Your task to perform on an android device: change alarm snooze length Image 0: 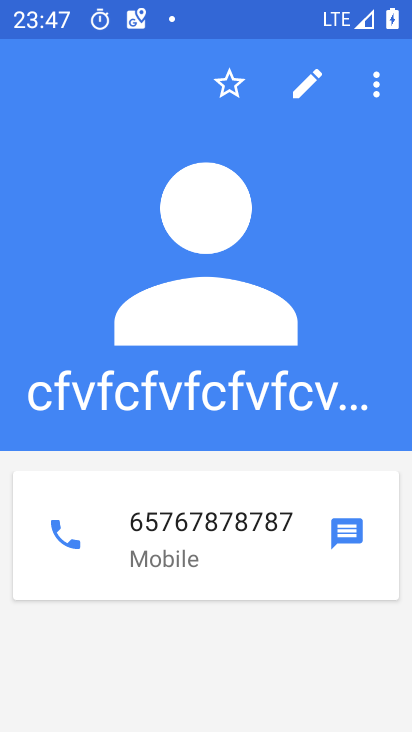
Step 0: press home button
Your task to perform on an android device: change alarm snooze length Image 1: 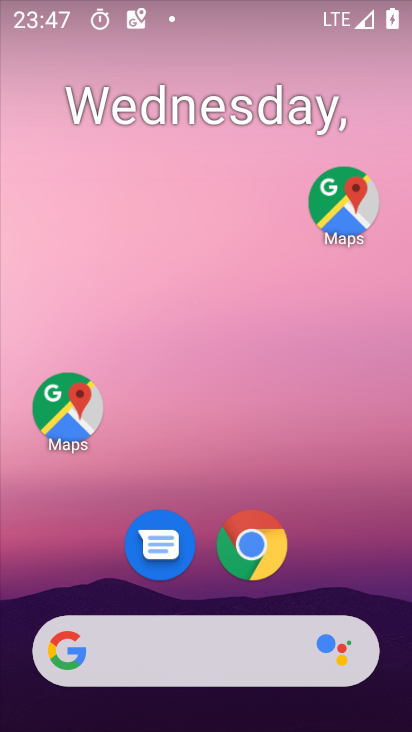
Step 1: drag from (322, 584) to (258, 3)
Your task to perform on an android device: change alarm snooze length Image 2: 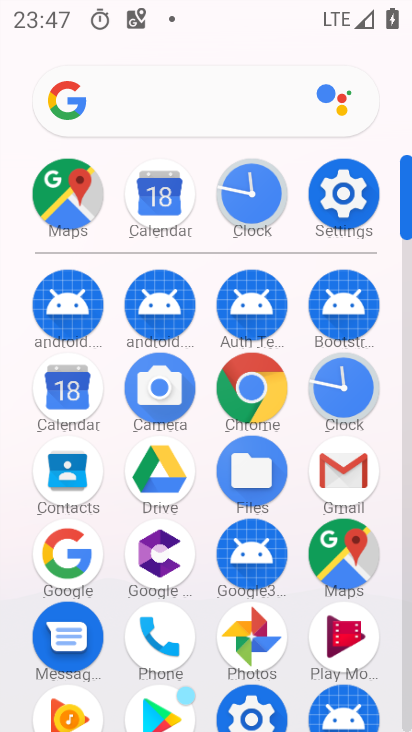
Step 2: click (337, 388)
Your task to perform on an android device: change alarm snooze length Image 3: 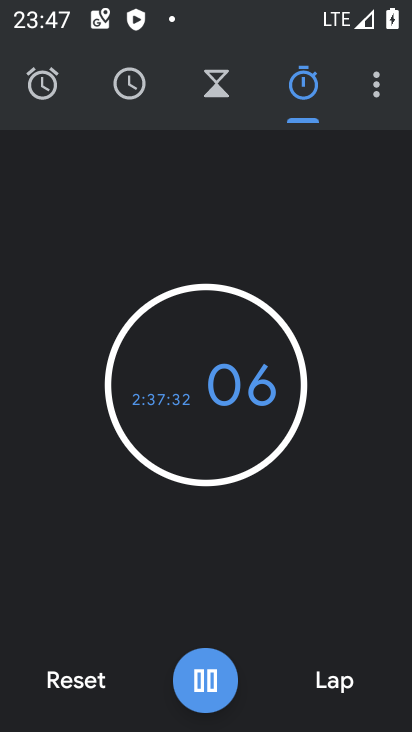
Step 3: click (377, 96)
Your task to perform on an android device: change alarm snooze length Image 4: 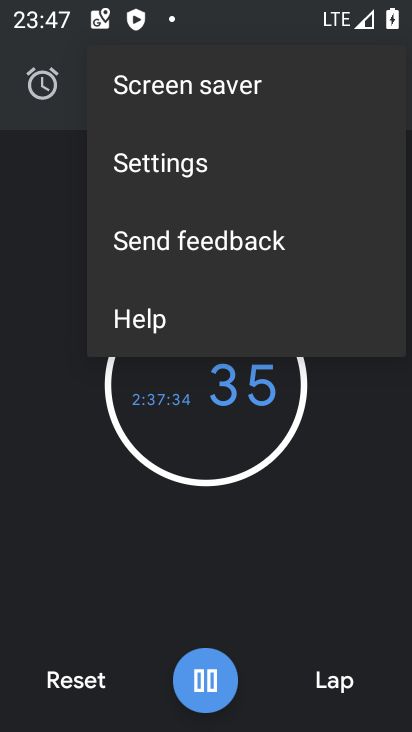
Step 4: click (141, 186)
Your task to perform on an android device: change alarm snooze length Image 5: 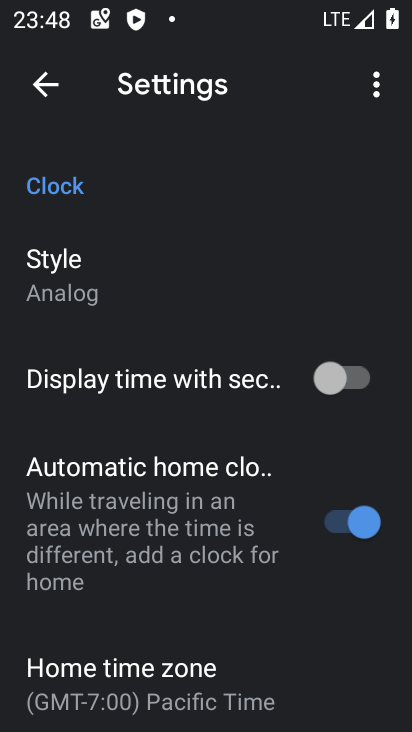
Step 5: drag from (143, 703) to (91, 171)
Your task to perform on an android device: change alarm snooze length Image 6: 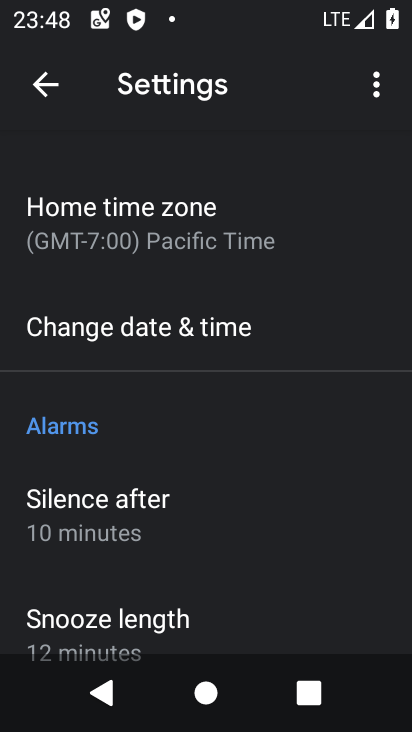
Step 6: drag from (155, 568) to (170, 264)
Your task to perform on an android device: change alarm snooze length Image 7: 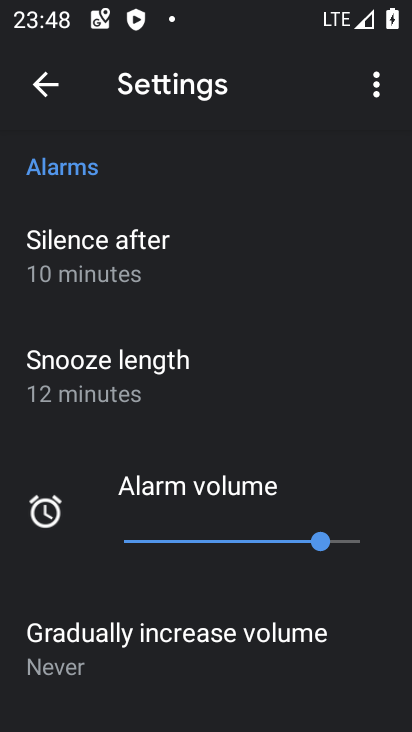
Step 7: click (113, 388)
Your task to perform on an android device: change alarm snooze length Image 8: 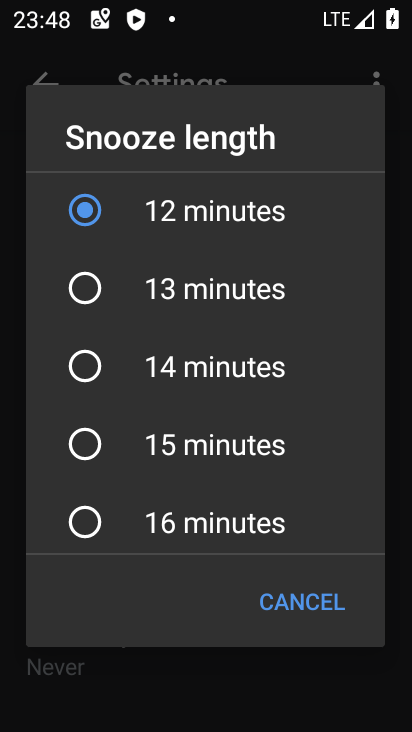
Step 8: click (205, 455)
Your task to perform on an android device: change alarm snooze length Image 9: 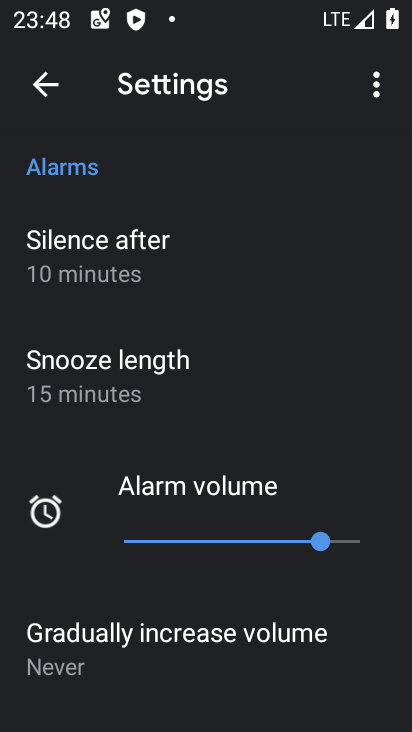
Step 9: task complete